Your task to perform on an android device: toggle improve location accuracy Image 0: 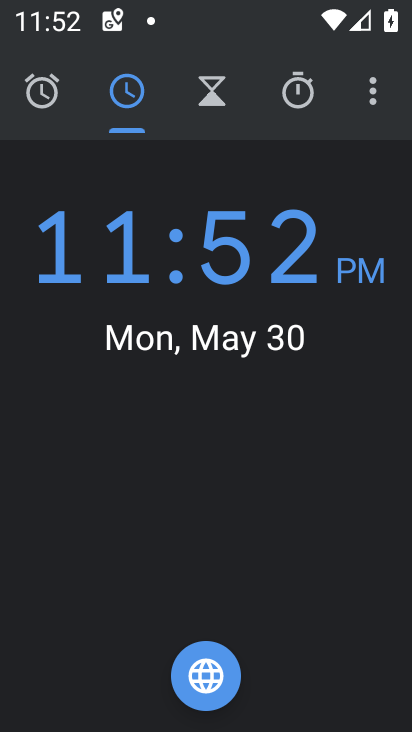
Step 0: press home button
Your task to perform on an android device: toggle improve location accuracy Image 1: 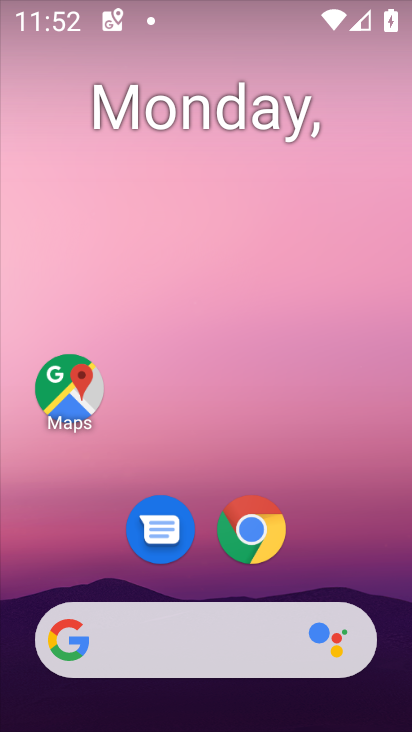
Step 1: drag from (255, 681) to (379, 206)
Your task to perform on an android device: toggle improve location accuracy Image 2: 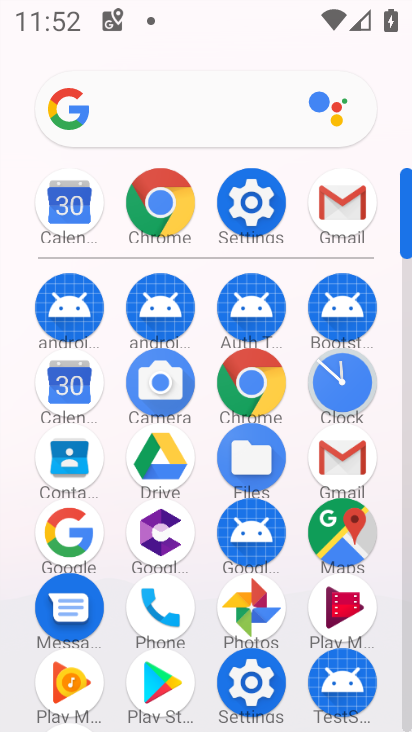
Step 2: click (248, 215)
Your task to perform on an android device: toggle improve location accuracy Image 3: 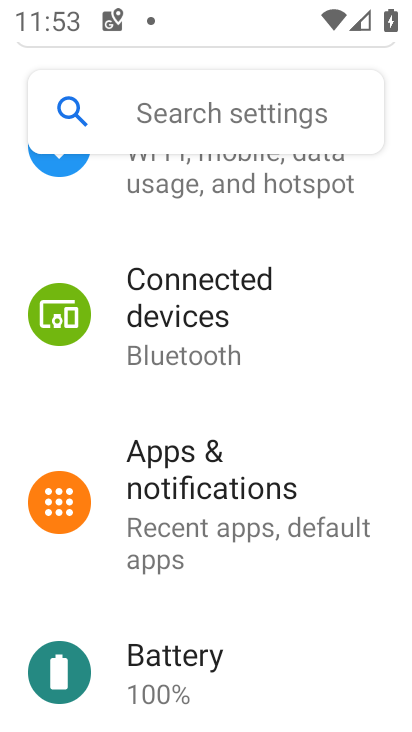
Step 3: click (203, 109)
Your task to perform on an android device: toggle improve location accuracy Image 4: 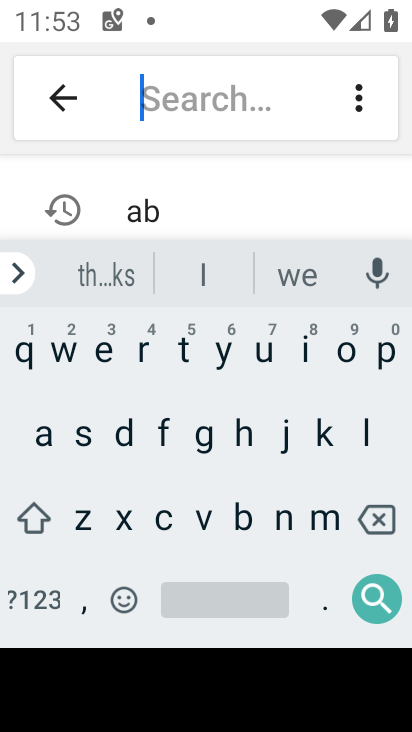
Step 4: click (371, 433)
Your task to perform on an android device: toggle improve location accuracy Image 5: 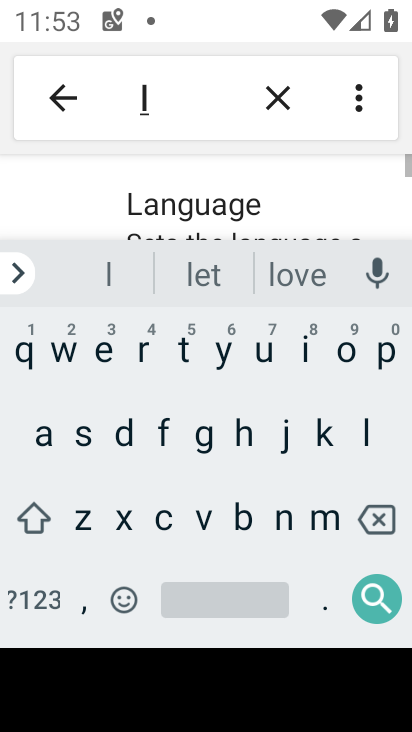
Step 5: click (350, 349)
Your task to perform on an android device: toggle improve location accuracy Image 6: 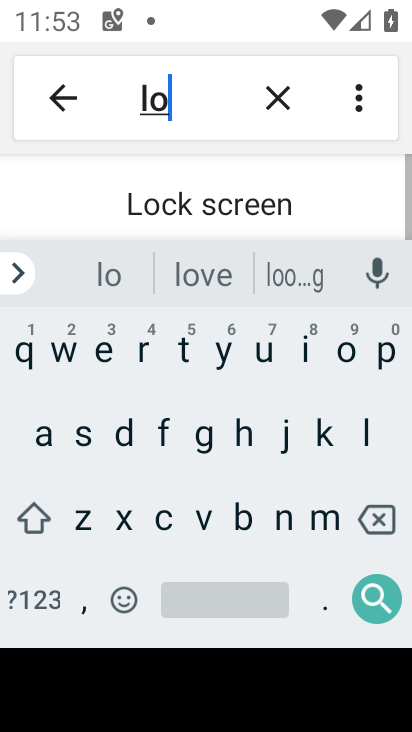
Step 6: press back button
Your task to perform on an android device: toggle improve location accuracy Image 7: 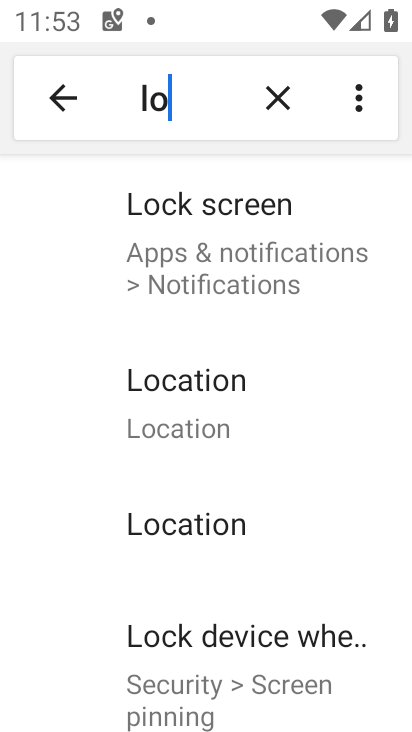
Step 7: click (197, 394)
Your task to perform on an android device: toggle improve location accuracy Image 8: 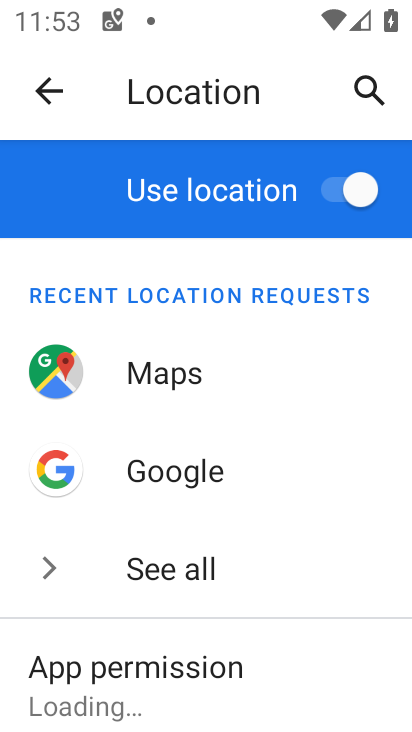
Step 8: drag from (126, 565) to (172, 99)
Your task to perform on an android device: toggle improve location accuracy Image 9: 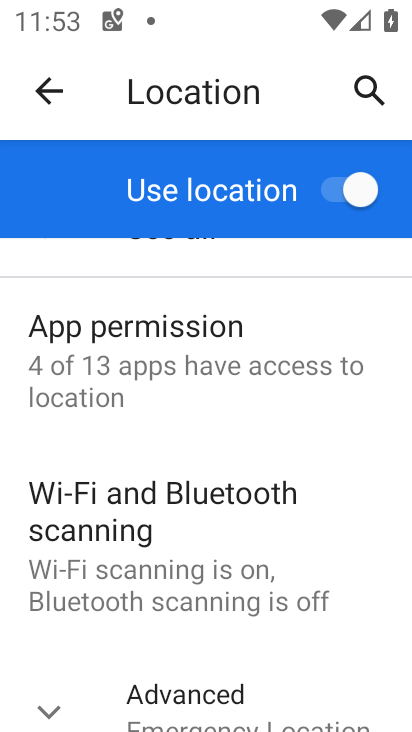
Step 9: drag from (117, 592) to (118, 387)
Your task to perform on an android device: toggle improve location accuracy Image 10: 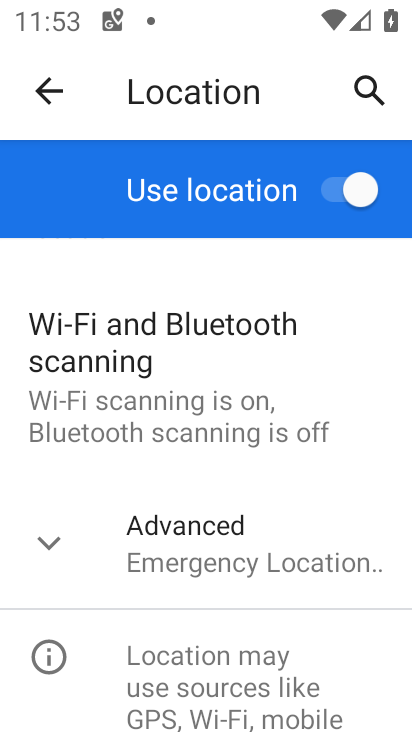
Step 10: click (86, 527)
Your task to perform on an android device: toggle improve location accuracy Image 11: 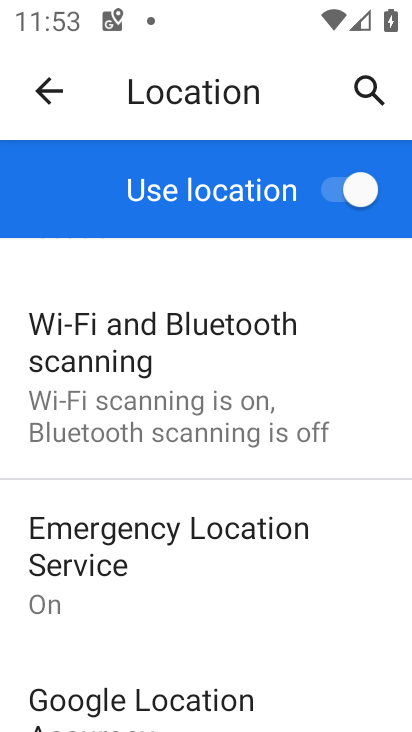
Step 11: click (170, 696)
Your task to perform on an android device: toggle improve location accuracy Image 12: 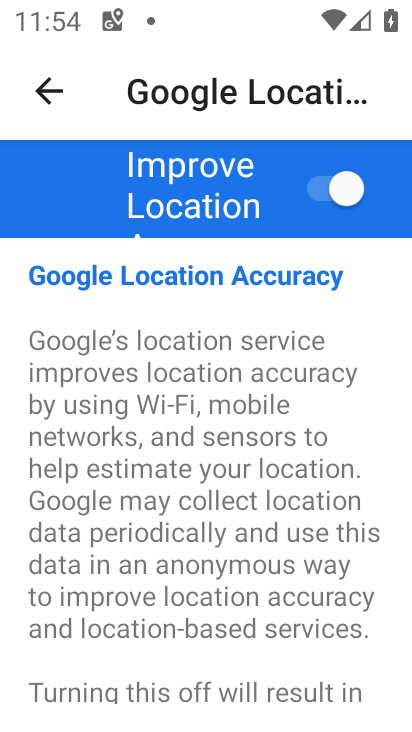
Step 12: task complete